Your task to perform on an android device: refresh tabs in the chrome app Image 0: 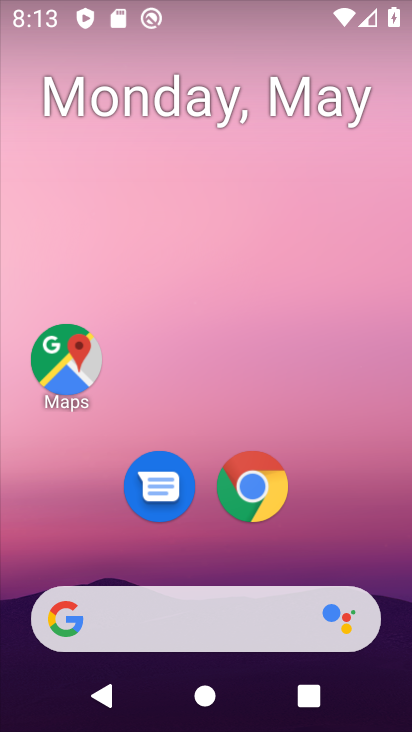
Step 0: click (250, 484)
Your task to perform on an android device: refresh tabs in the chrome app Image 1: 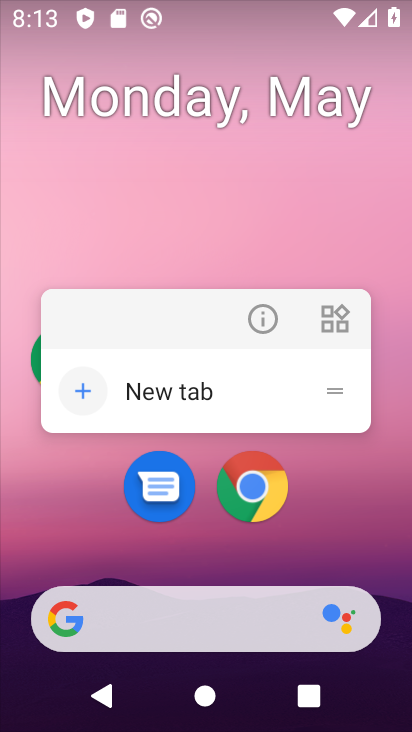
Step 1: click (250, 484)
Your task to perform on an android device: refresh tabs in the chrome app Image 2: 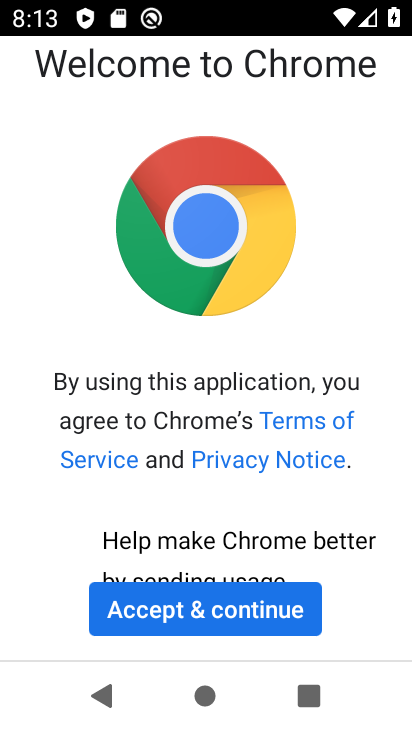
Step 2: click (188, 613)
Your task to perform on an android device: refresh tabs in the chrome app Image 3: 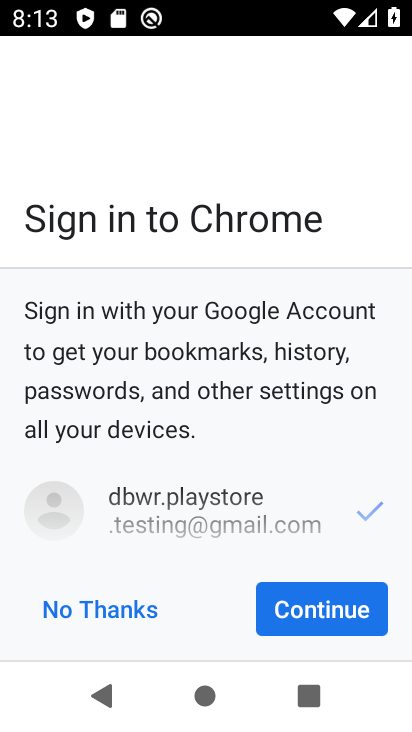
Step 3: click (320, 605)
Your task to perform on an android device: refresh tabs in the chrome app Image 4: 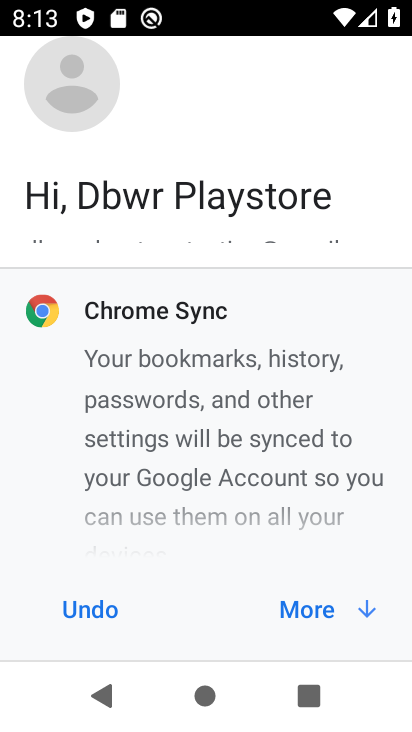
Step 4: click (320, 605)
Your task to perform on an android device: refresh tabs in the chrome app Image 5: 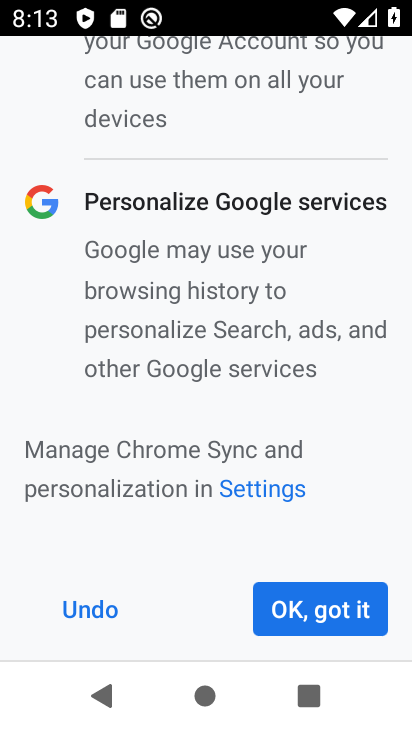
Step 5: click (320, 604)
Your task to perform on an android device: refresh tabs in the chrome app Image 6: 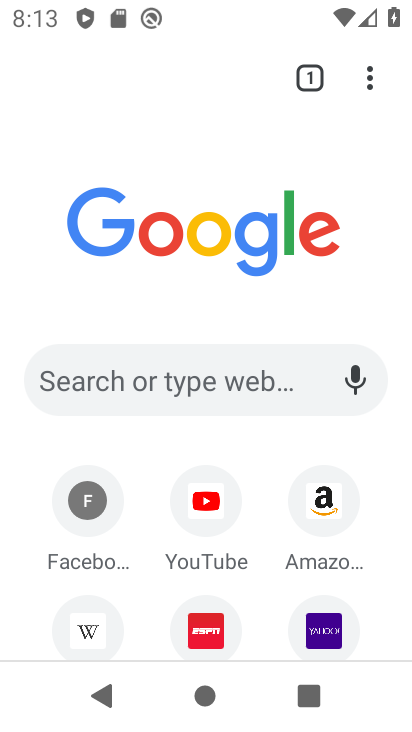
Step 6: click (366, 67)
Your task to perform on an android device: refresh tabs in the chrome app Image 7: 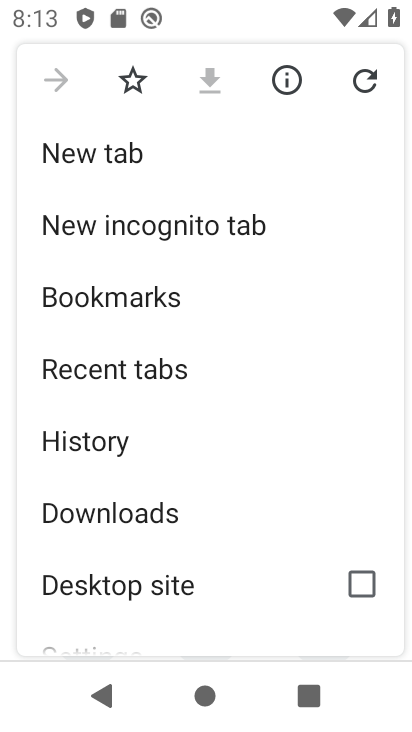
Step 7: click (350, 81)
Your task to perform on an android device: refresh tabs in the chrome app Image 8: 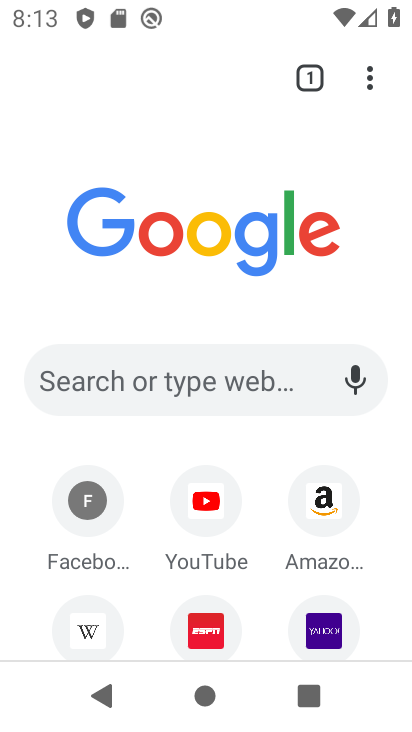
Step 8: task complete